Your task to perform on an android device: Go to location settings Image 0: 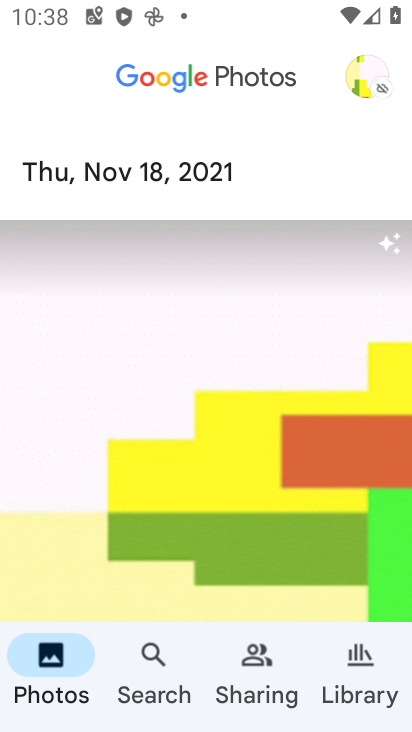
Step 0: press home button
Your task to perform on an android device: Go to location settings Image 1: 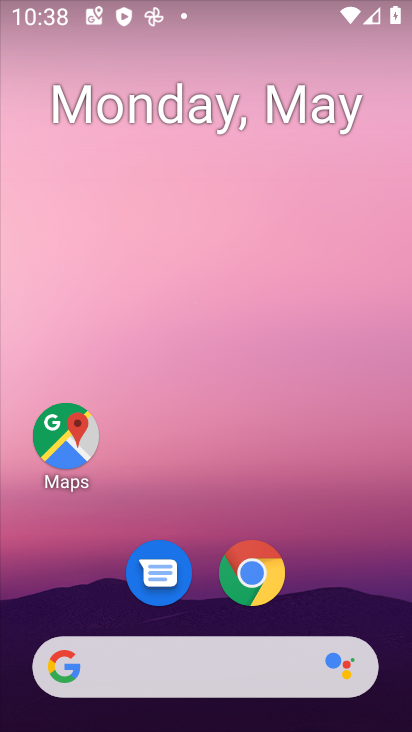
Step 1: drag from (375, 599) to (297, 27)
Your task to perform on an android device: Go to location settings Image 2: 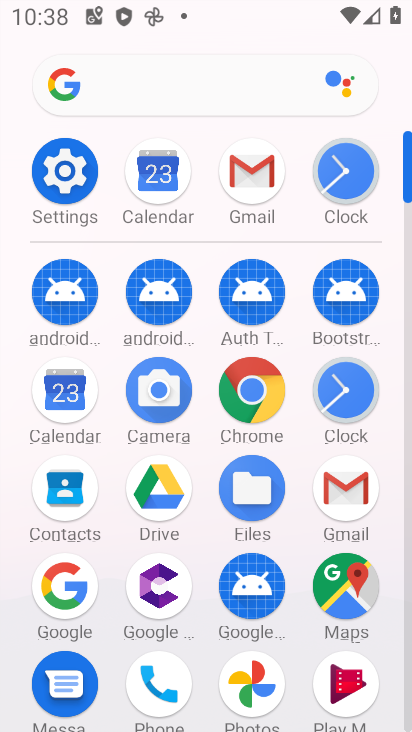
Step 2: click (76, 170)
Your task to perform on an android device: Go to location settings Image 3: 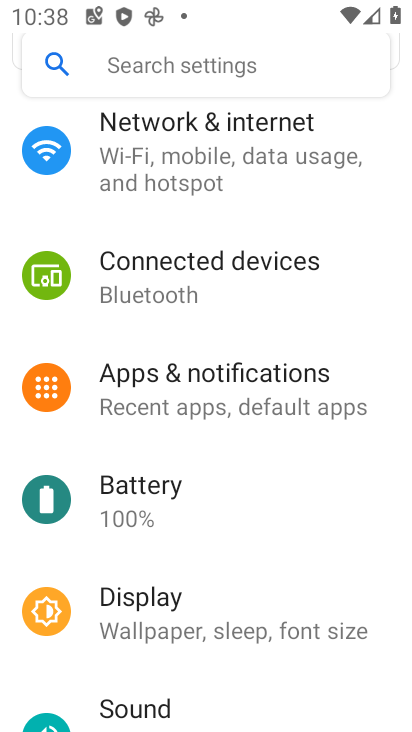
Step 3: drag from (241, 619) to (216, 229)
Your task to perform on an android device: Go to location settings Image 4: 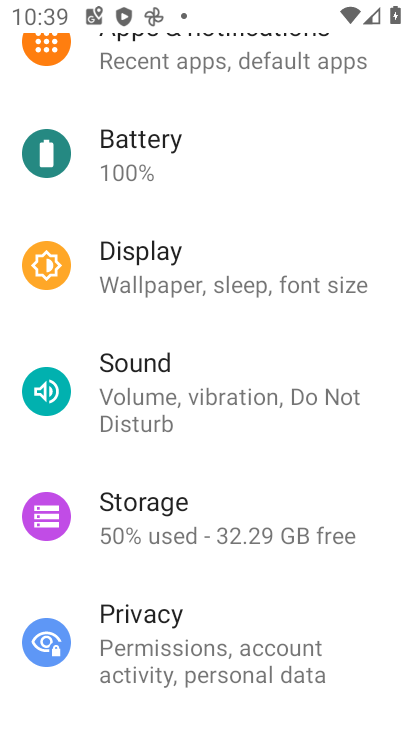
Step 4: drag from (197, 641) to (175, 357)
Your task to perform on an android device: Go to location settings Image 5: 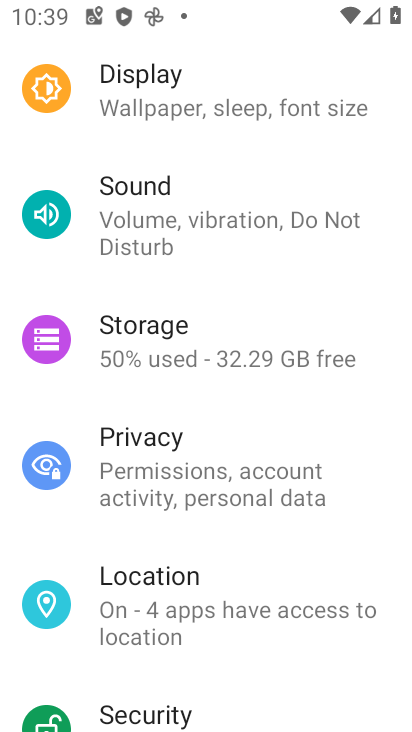
Step 5: click (206, 610)
Your task to perform on an android device: Go to location settings Image 6: 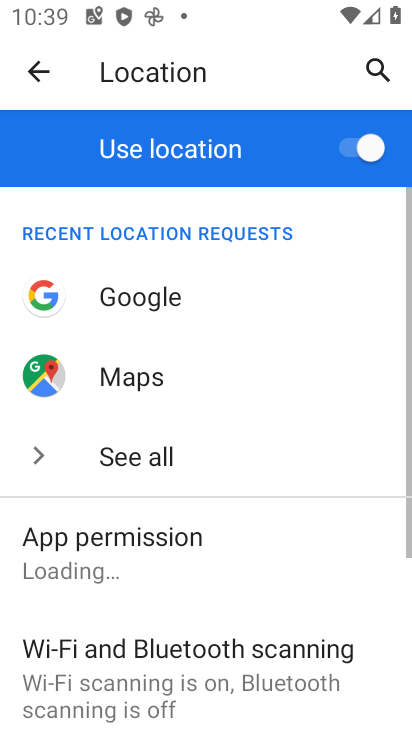
Step 6: task complete